Your task to perform on an android device: open app "DuckDuckGo Privacy Browser" (install if not already installed) Image 0: 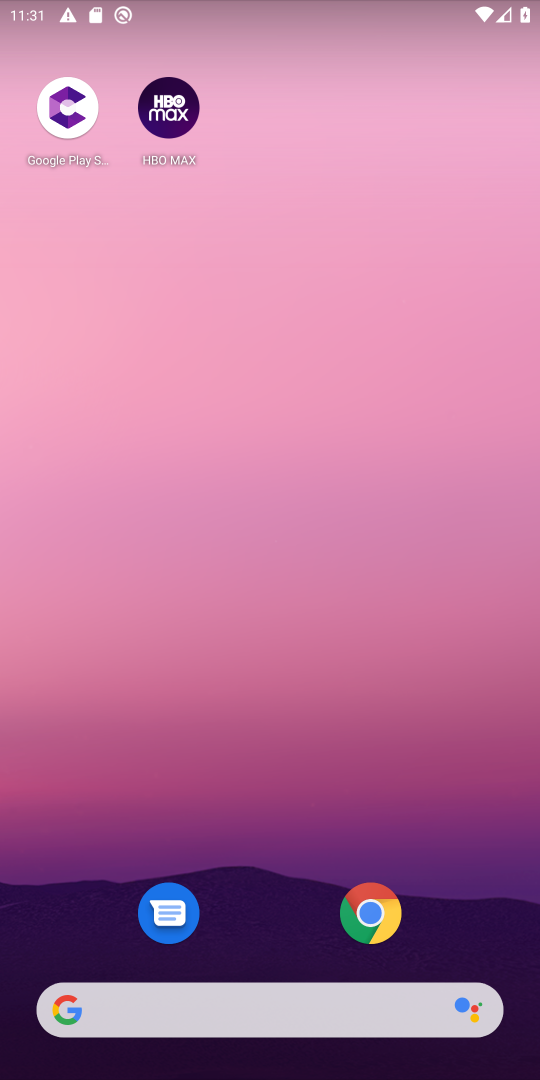
Step 0: drag from (255, 945) to (277, 210)
Your task to perform on an android device: open app "DuckDuckGo Privacy Browser" (install if not already installed) Image 1: 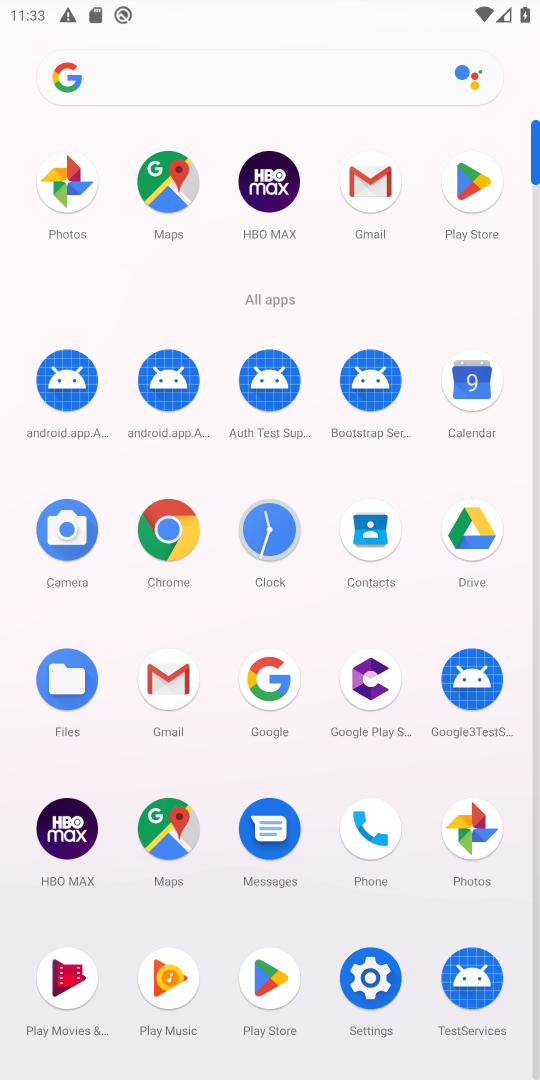
Step 1: click (477, 168)
Your task to perform on an android device: open app "DuckDuckGo Privacy Browser" (install if not already installed) Image 2: 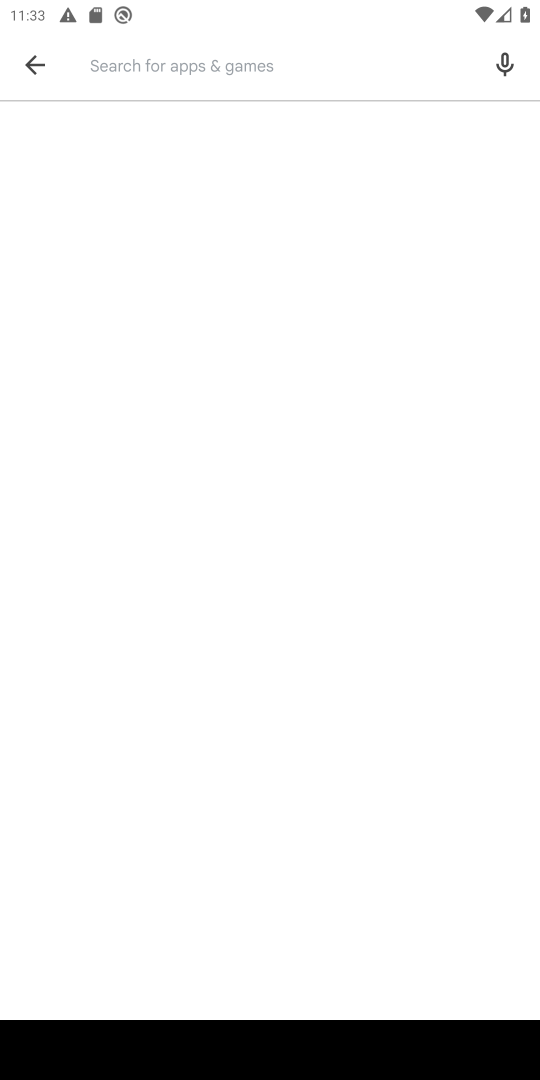
Step 2: click (294, 64)
Your task to perform on an android device: open app "DuckDuckGo Privacy Browser" (install if not already installed) Image 3: 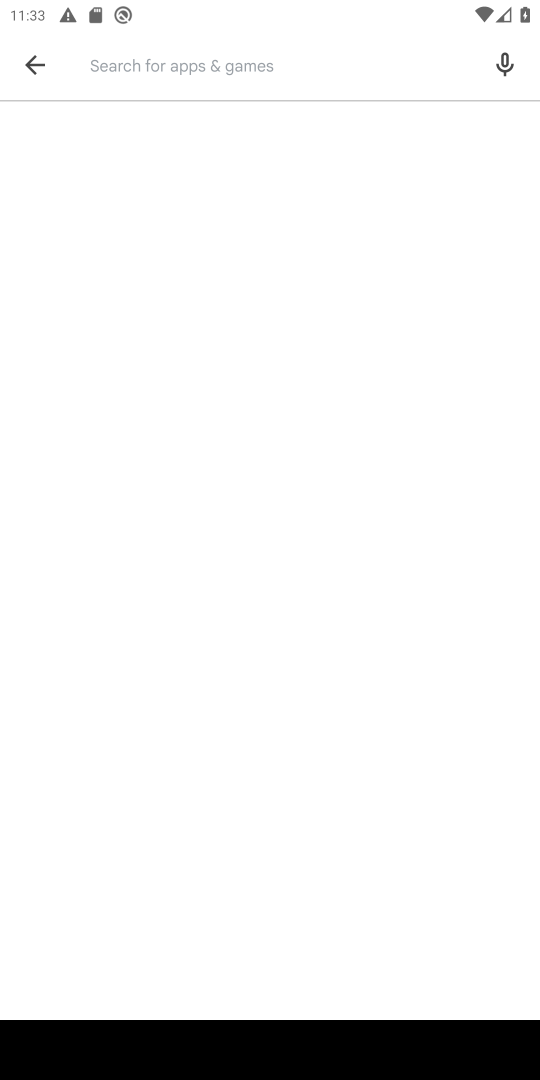
Step 3: type "DuckDuckGo Privacy Browser "
Your task to perform on an android device: open app "DuckDuckGo Privacy Browser" (install if not already installed) Image 4: 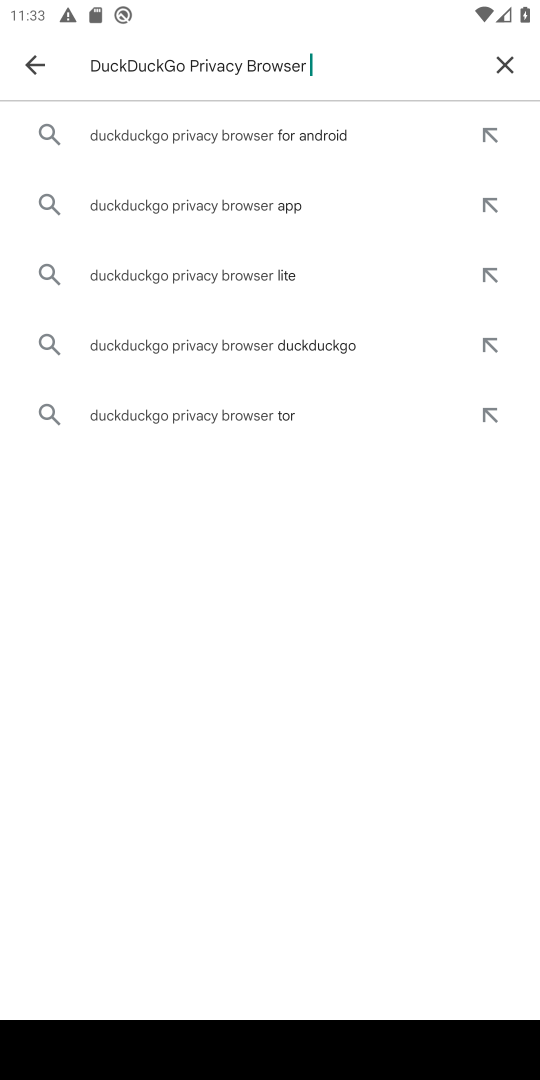
Step 4: click (199, 128)
Your task to perform on an android device: open app "DuckDuckGo Privacy Browser" (install if not already installed) Image 5: 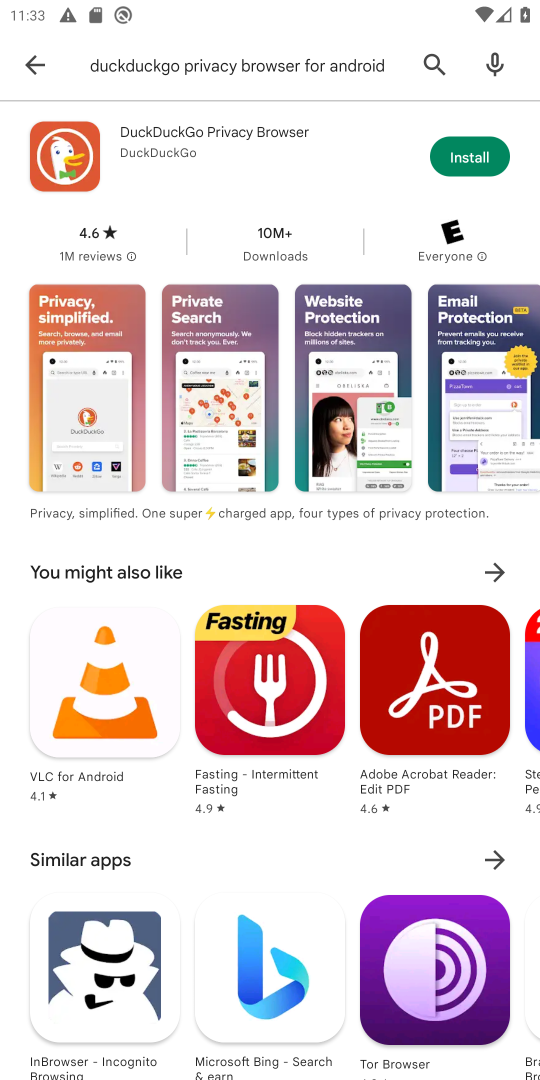
Step 5: click (460, 142)
Your task to perform on an android device: open app "DuckDuckGo Privacy Browser" (install if not already installed) Image 6: 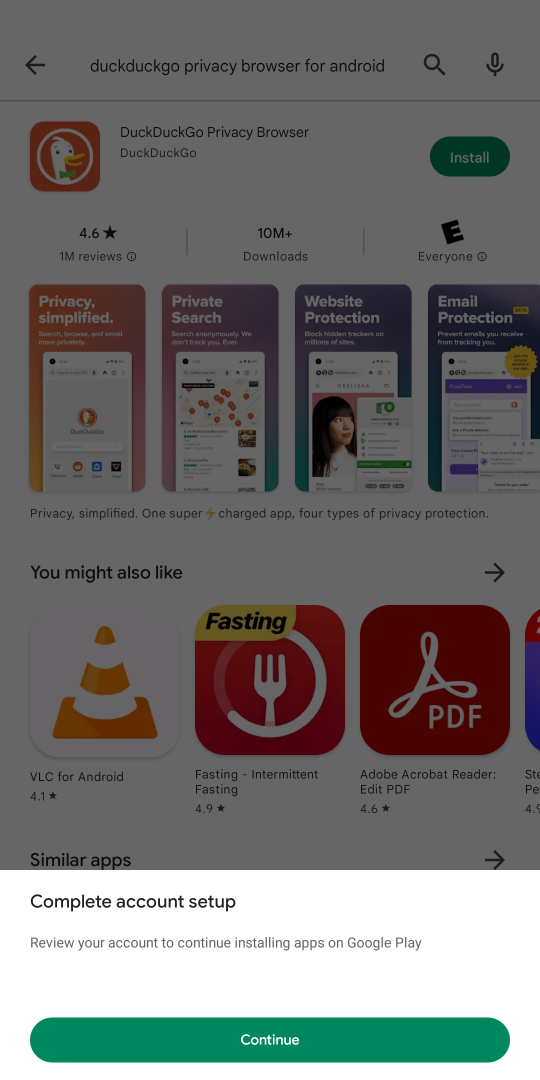
Step 6: task complete